Your task to perform on an android device: turn on improve location accuracy Image 0: 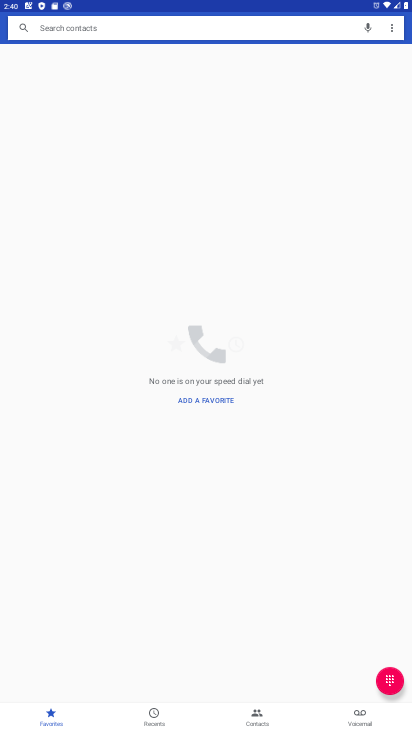
Step 0: press home button
Your task to perform on an android device: turn on improve location accuracy Image 1: 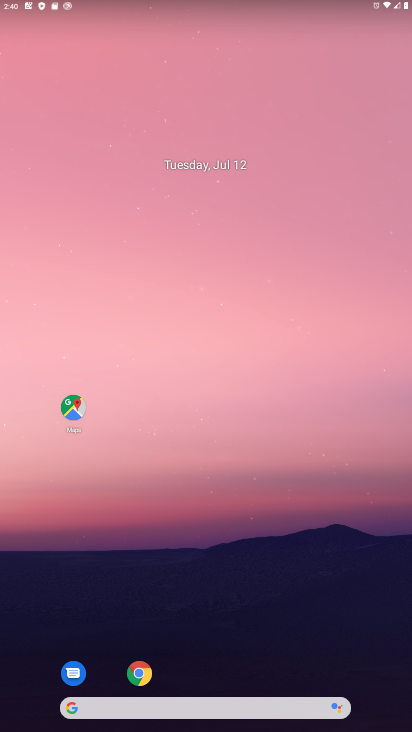
Step 1: drag from (275, 651) to (255, 313)
Your task to perform on an android device: turn on improve location accuracy Image 2: 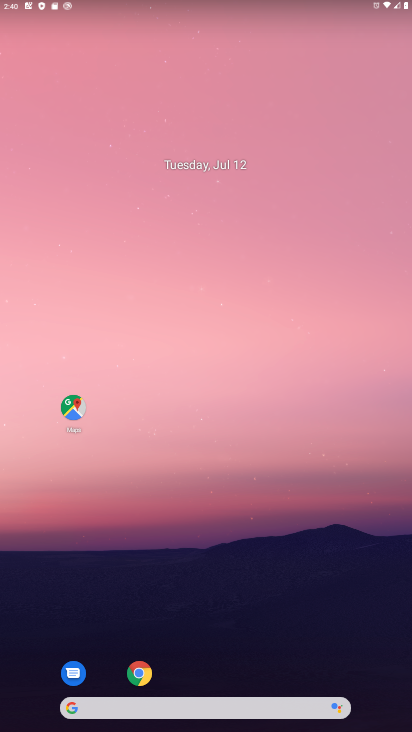
Step 2: drag from (251, 623) to (284, 199)
Your task to perform on an android device: turn on improve location accuracy Image 3: 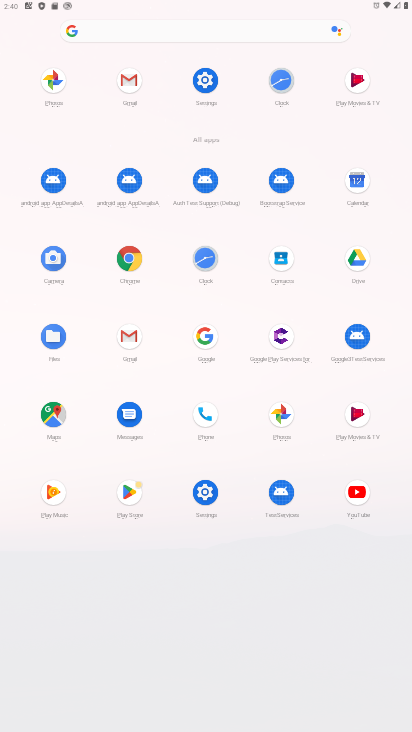
Step 3: click (196, 70)
Your task to perform on an android device: turn on improve location accuracy Image 4: 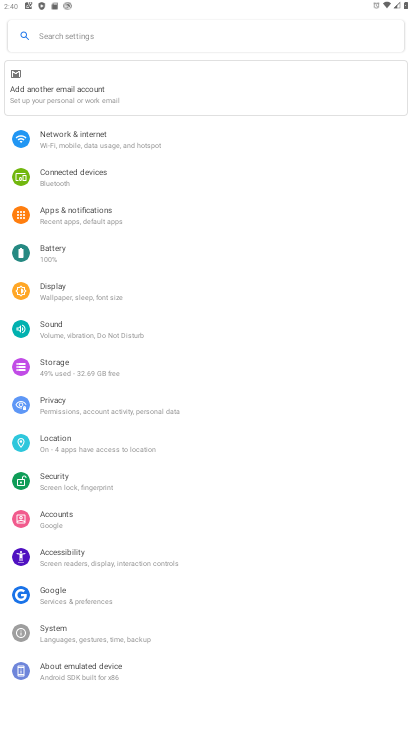
Step 4: click (165, 440)
Your task to perform on an android device: turn on improve location accuracy Image 5: 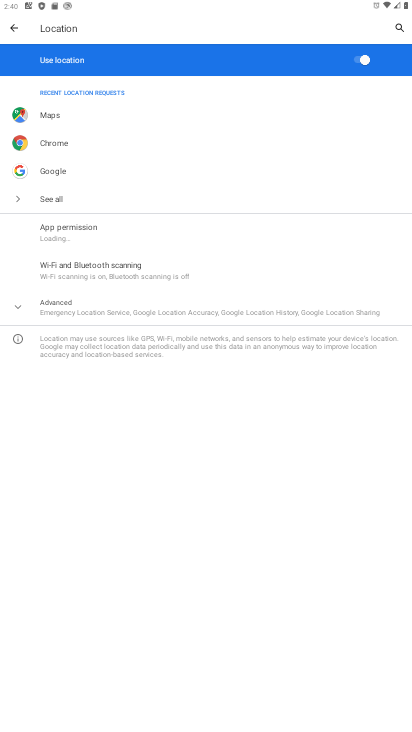
Step 5: click (110, 309)
Your task to perform on an android device: turn on improve location accuracy Image 6: 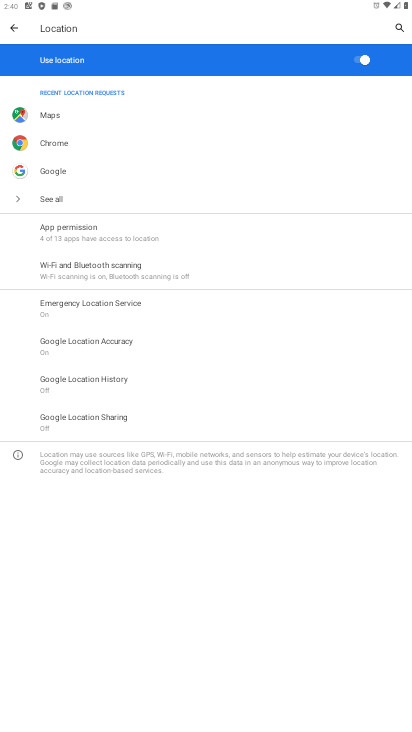
Step 6: click (137, 352)
Your task to perform on an android device: turn on improve location accuracy Image 7: 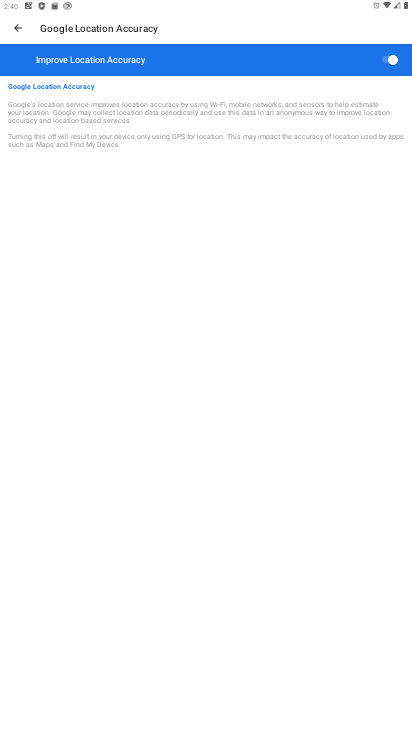
Step 7: task complete